Your task to perform on an android device: toggle pop-ups in chrome Image 0: 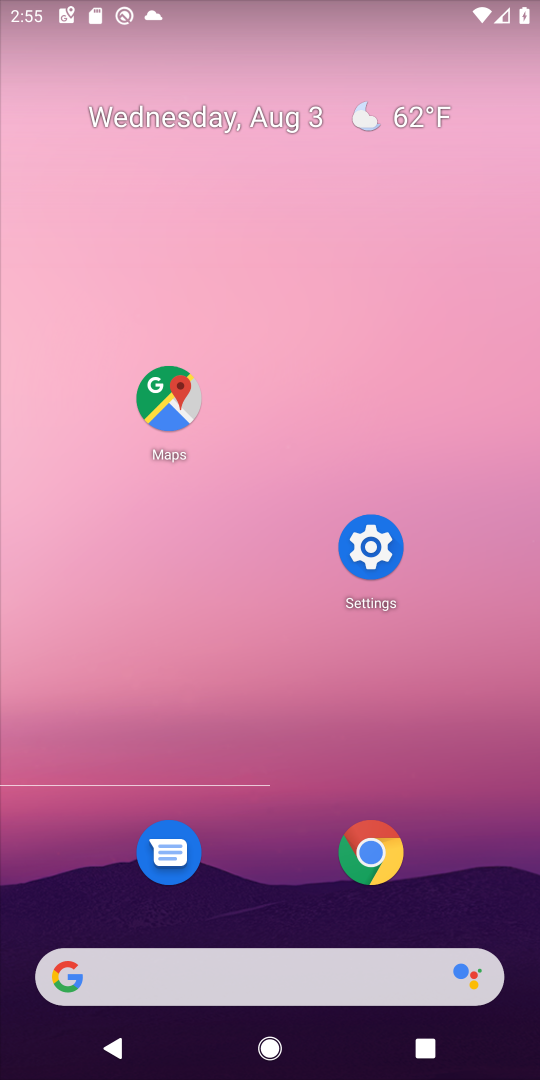
Step 0: click (374, 860)
Your task to perform on an android device: toggle pop-ups in chrome Image 1: 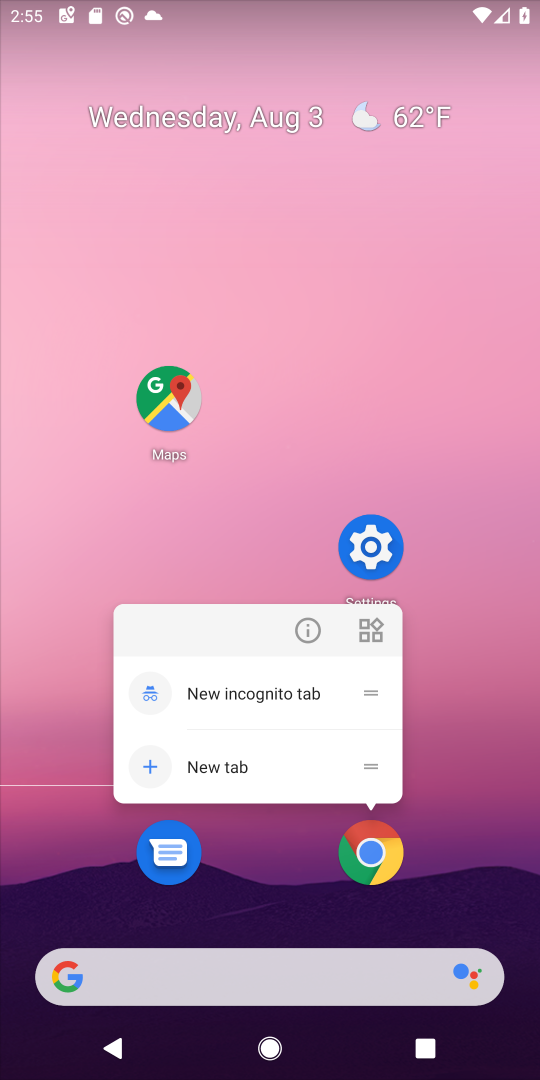
Step 1: click (374, 862)
Your task to perform on an android device: toggle pop-ups in chrome Image 2: 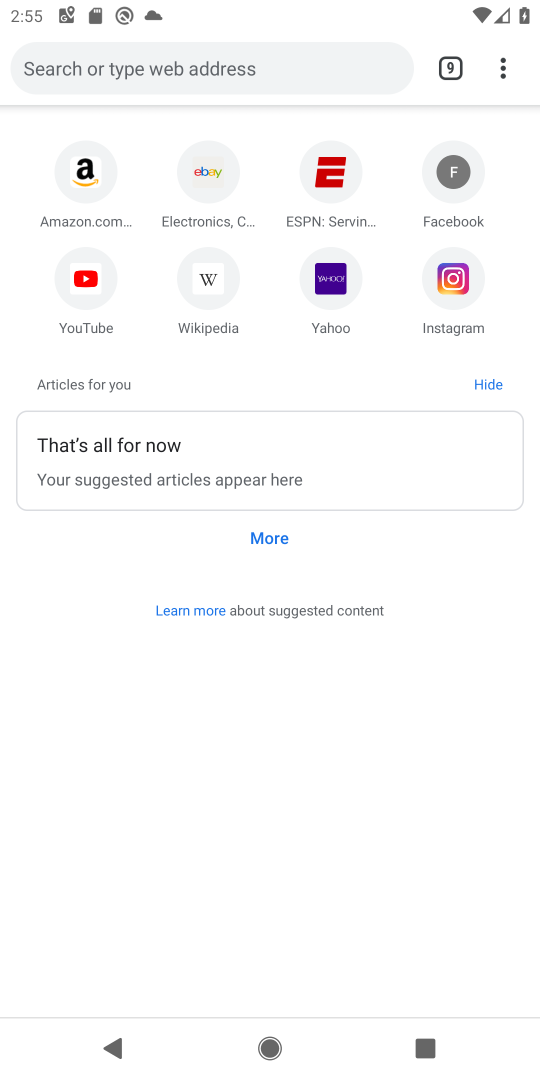
Step 2: drag from (500, 63) to (259, 653)
Your task to perform on an android device: toggle pop-ups in chrome Image 3: 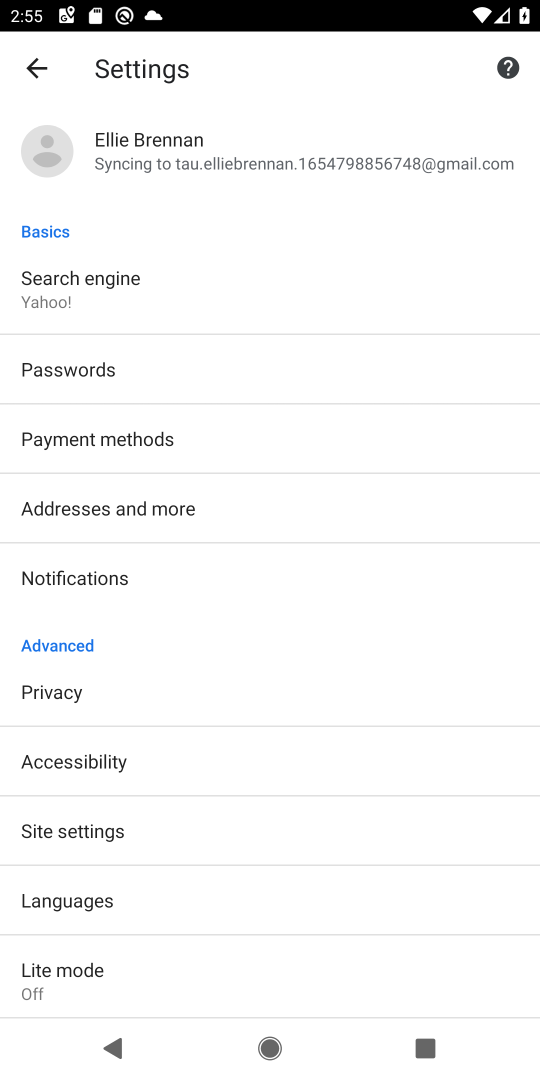
Step 3: click (105, 830)
Your task to perform on an android device: toggle pop-ups in chrome Image 4: 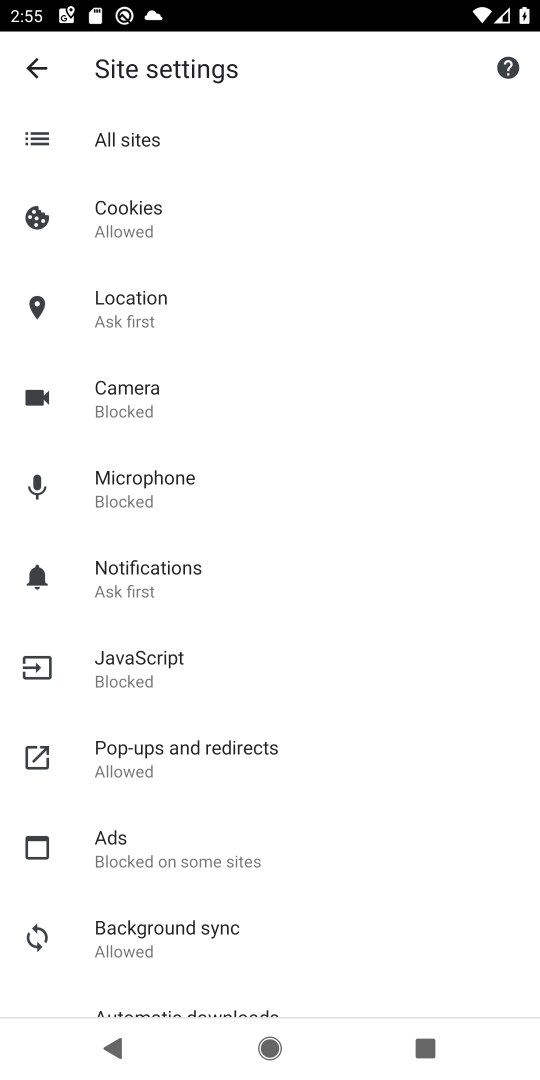
Step 4: click (158, 759)
Your task to perform on an android device: toggle pop-ups in chrome Image 5: 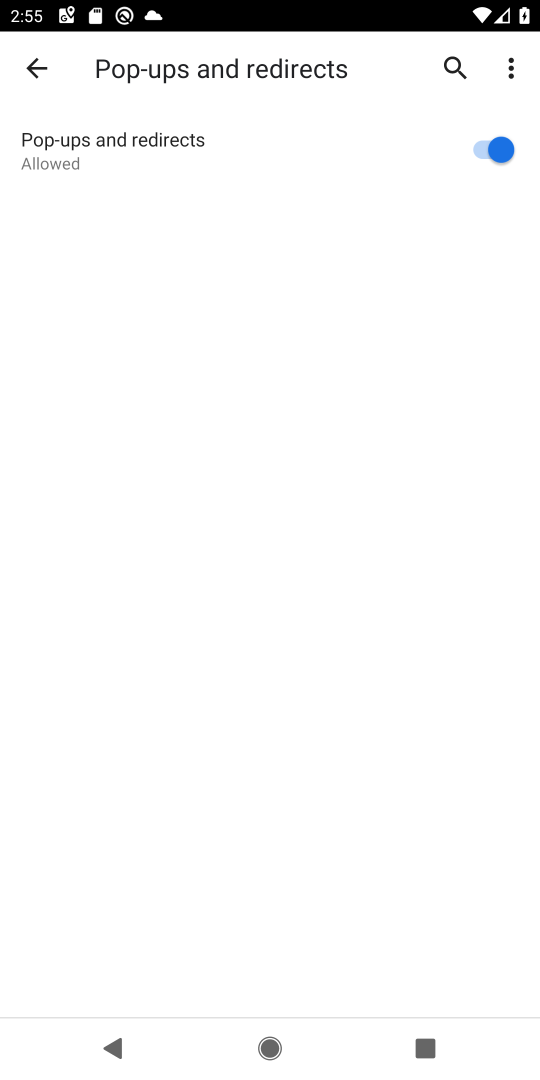
Step 5: click (481, 148)
Your task to perform on an android device: toggle pop-ups in chrome Image 6: 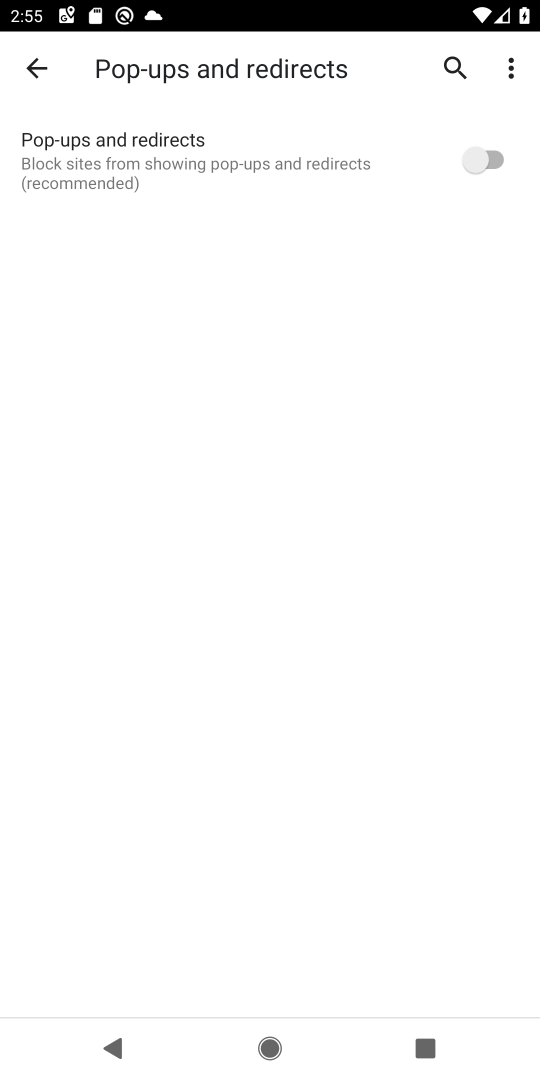
Step 6: task complete